Your task to perform on an android device: open sync settings in chrome Image 0: 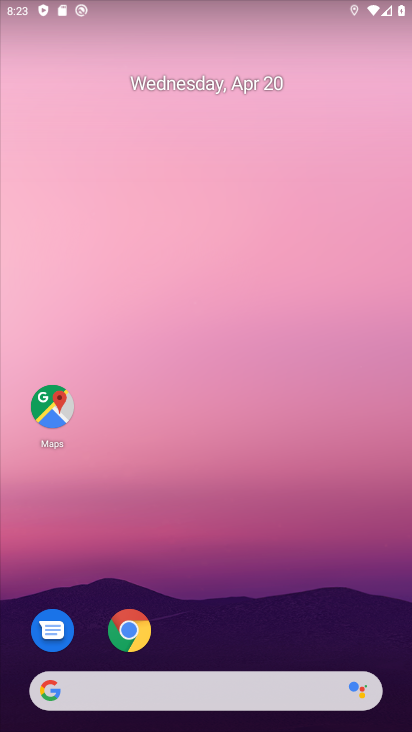
Step 0: click (137, 630)
Your task to perform on an android device: open sync settings in chrome Image 1: 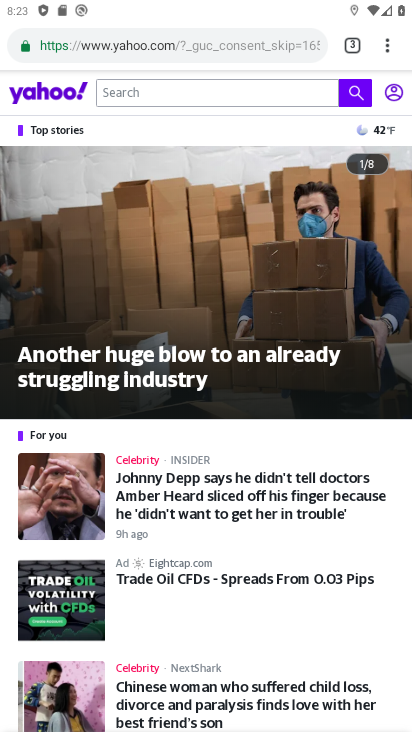
Step 1: click (386, 44)
Your task to perform on an android device: open sync settings in chrome Image 2: 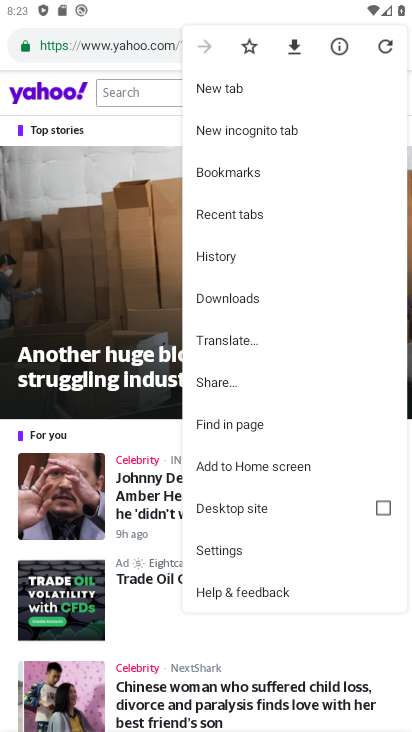
Step 2: click (223, 560)
Your task to perform on an android device: open sync settings in chrome Image 3: 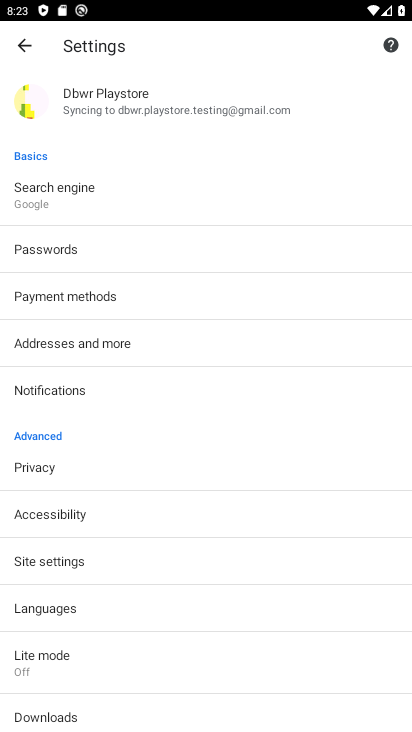
Step 3: click (138, 104)
Your task to perform on an android device: open sync settings in chrome Image 4: 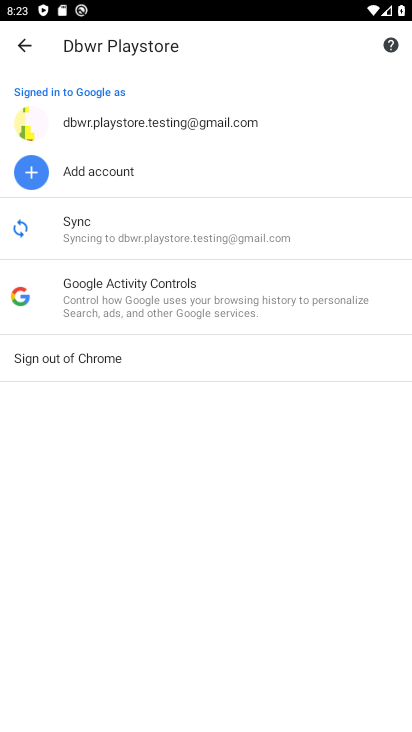
Step 4: click (199, 221)
Your task to perform on an android device: open sync settings in chrome Image 5: 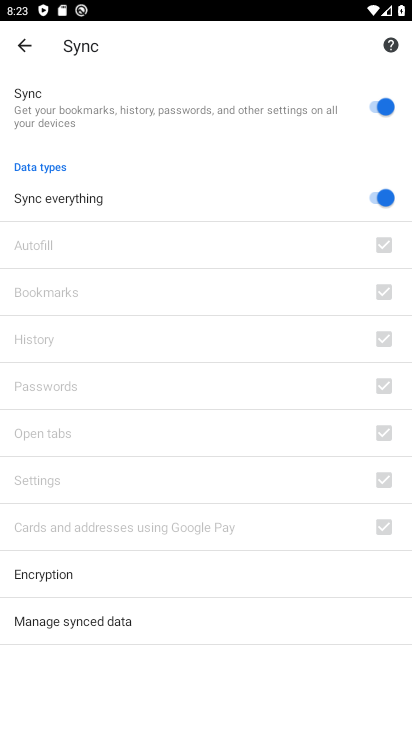
Step 5: task complete